Your task to perform on an android device: Open Android settings Image 0: 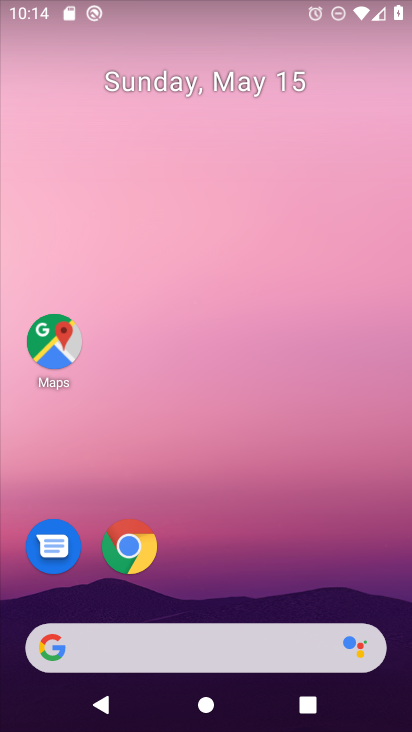
Step 0: drag from (331, 569) to (363, 141)
Your task to perform on an android device: Open Android settings Image 1: 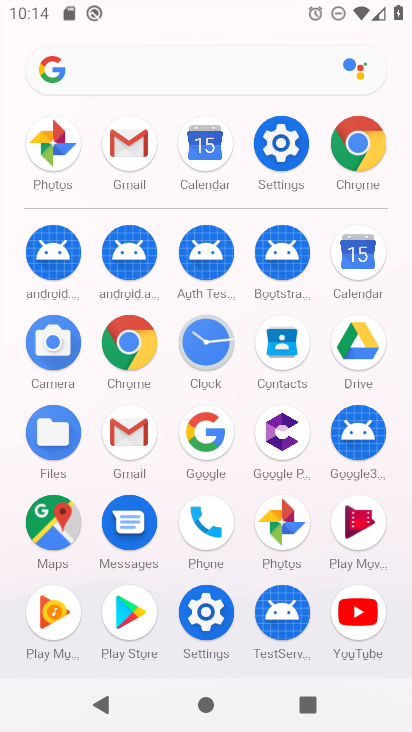
Step 1: click (276, 137)
Your task to perform on an android device: Open Android settings Image 2: 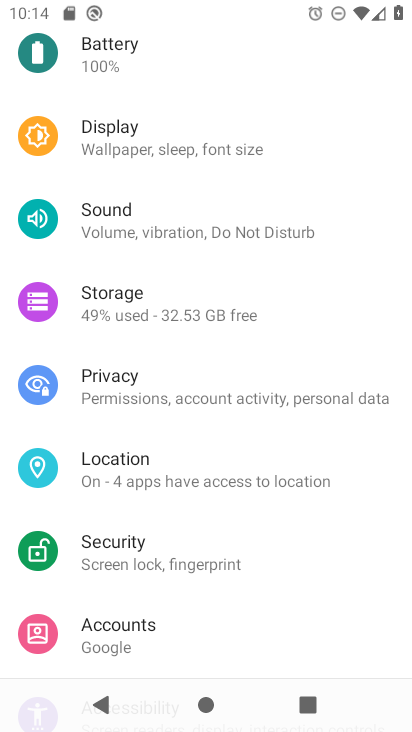
Step 2: task complete